Your task to perform on an android device: Look up the best rated headphones on Walmart. Image 0: 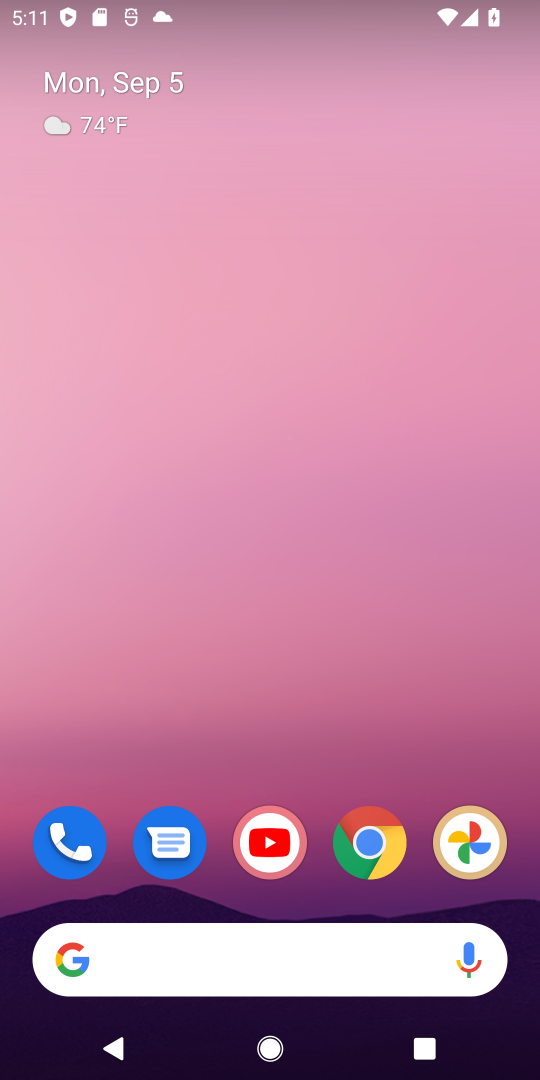
Step 0: click (374, 844)
Your task to perform on an android device: Look up the best rated headphones on Walmart. Image 1: 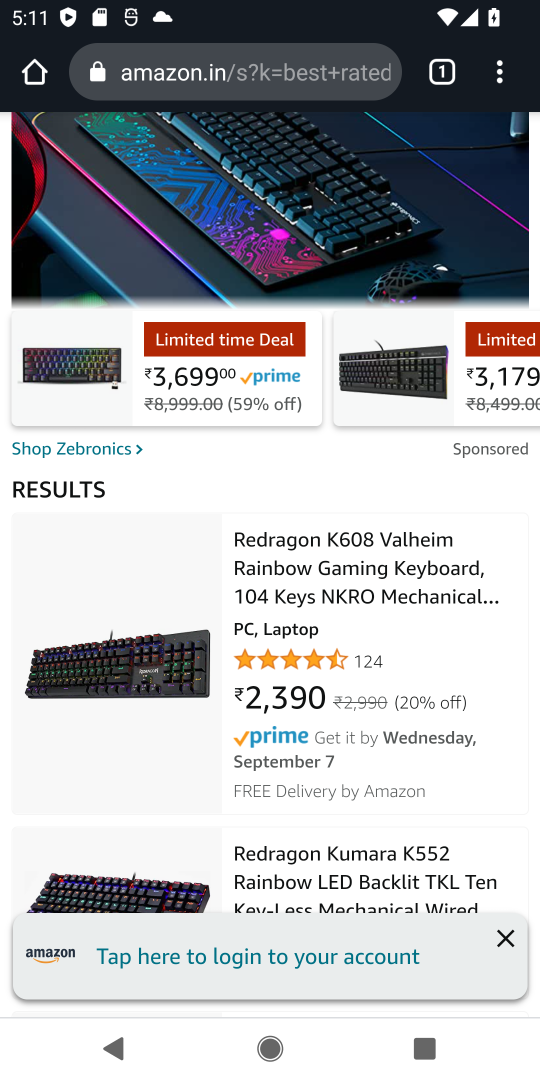
Step 1: click (198, 72)
Your task to perform on an android device: Look up the best rated headphones on Walmart. Image 2: 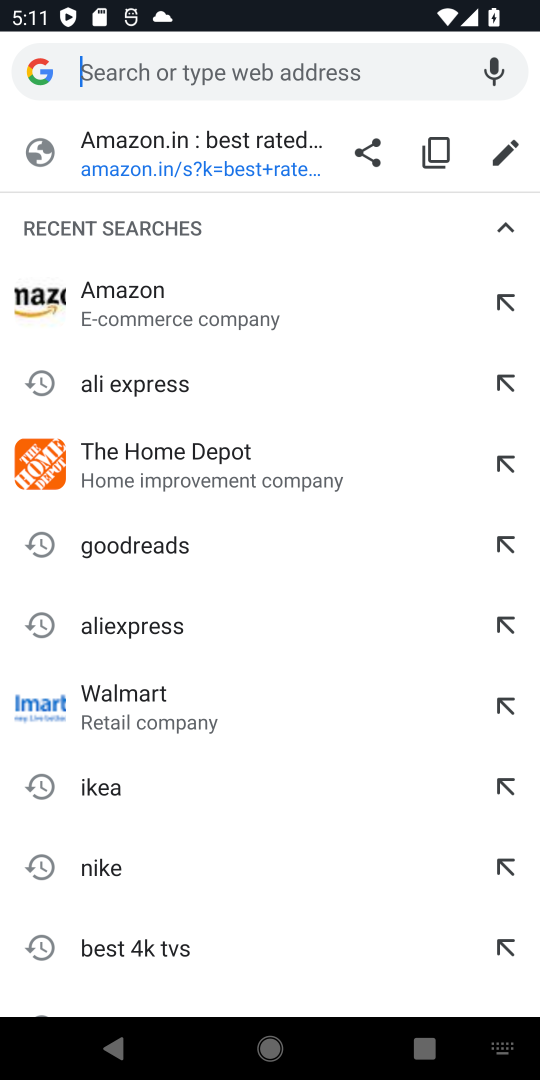
Step 2: type "Walmart"
Your task to perform on an android device: Look up the best rated headphones on Walmart. Image 3: 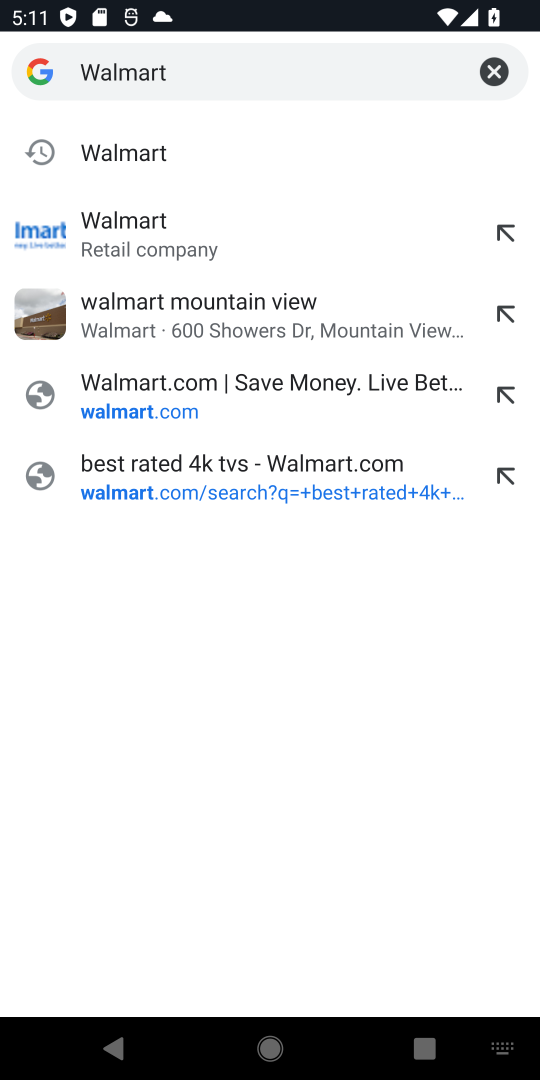
Step 3: click (132, 220)
Your task to perform on an android device: Look up the best rated headphones on Walmart. Image 4: 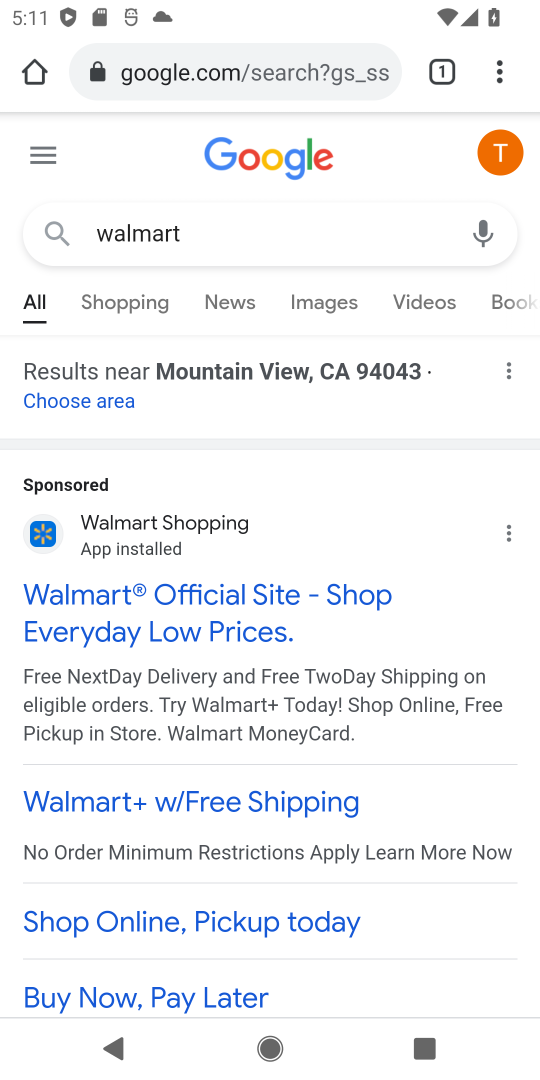
Step 4: drag from (364, 548) to (375, 208)
Your task to perform on an android device: Look up the best rated headphones on Walmart. Image 5: 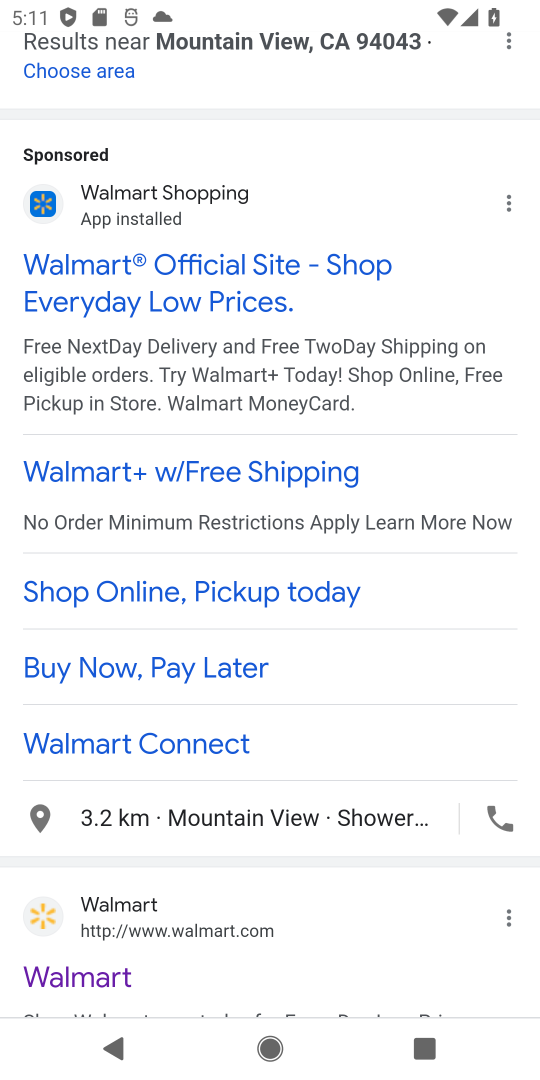
Step 5: click (168, 990)
Your task to perform on an android device: Look up the best rated headphones on Walmart. Image 6: 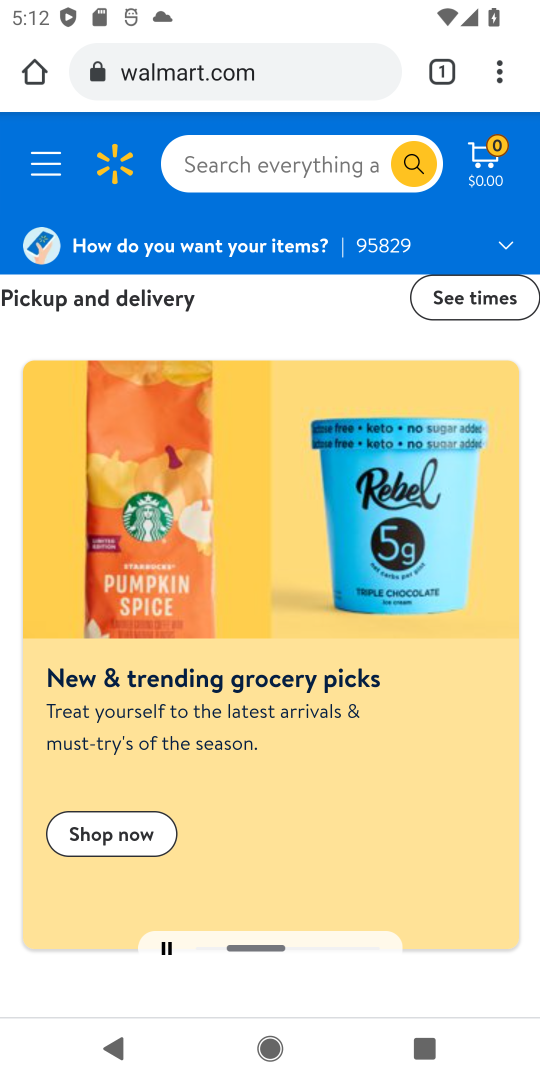
Step 6: click (257, 173)
Your task to perform on an android device: Look up the best rated headphones on Walmart. Image 7: 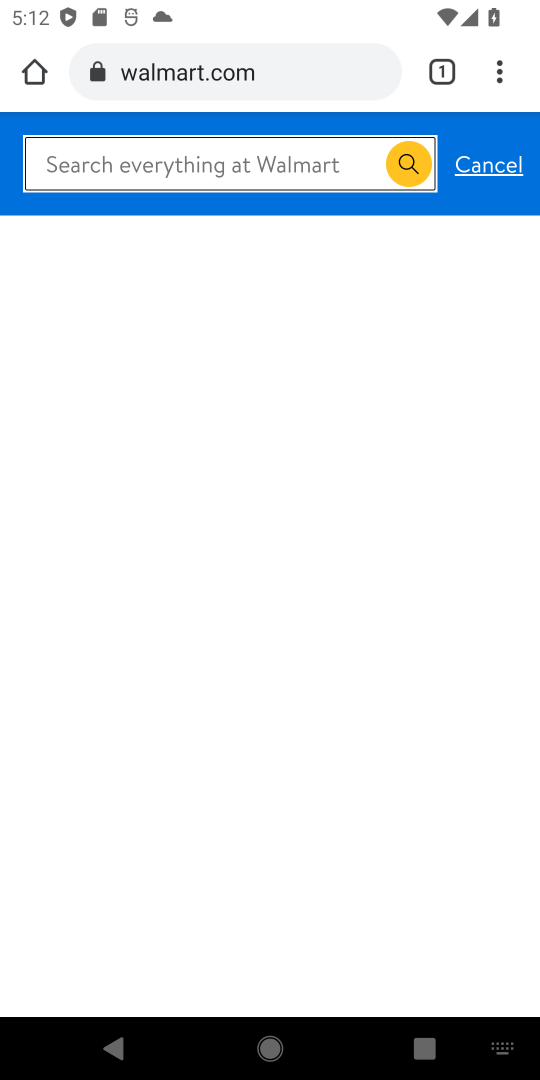
Step 7: type "best rated headphones"
Your task to perform on an android device: Look up the best rated headphones on Walmart. Image 8: 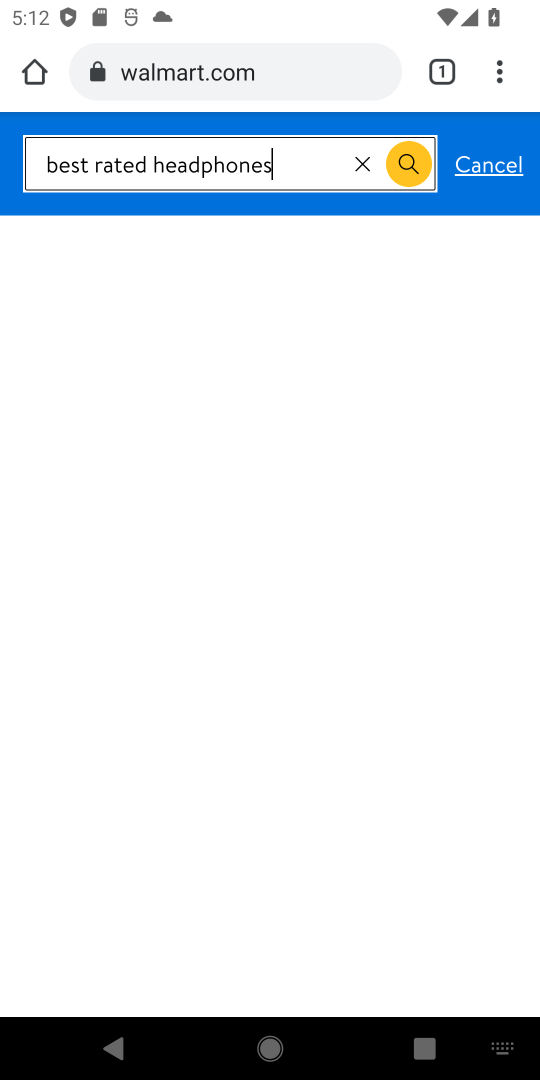
Step 8: click (407, 164)
Your task to perform on an android device: Look up the best rated headphones on Walmart. Image 9: 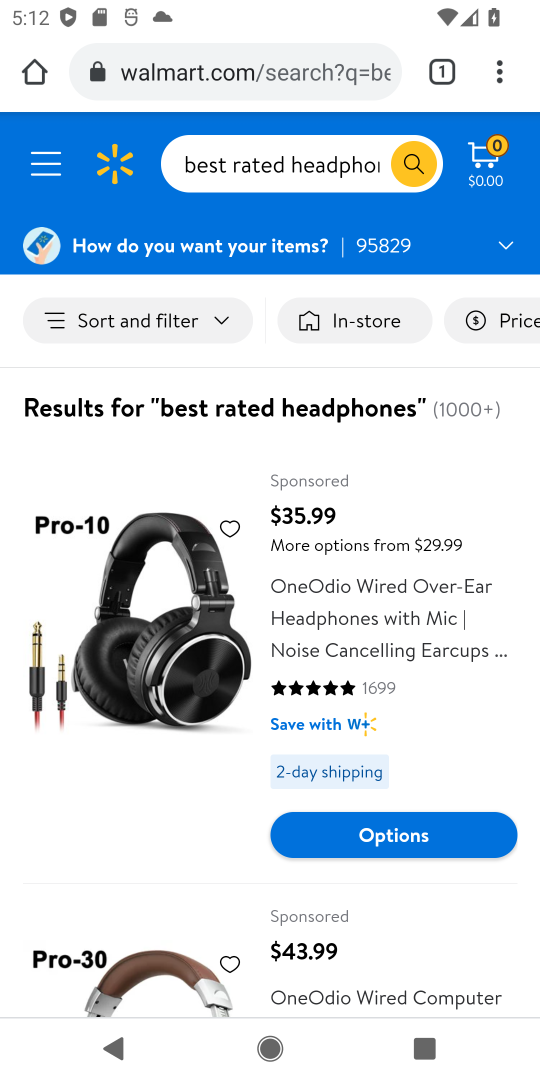
Step 9: task complete